Your task to perform on an android device: check the backup settings in the google photos Image 0: 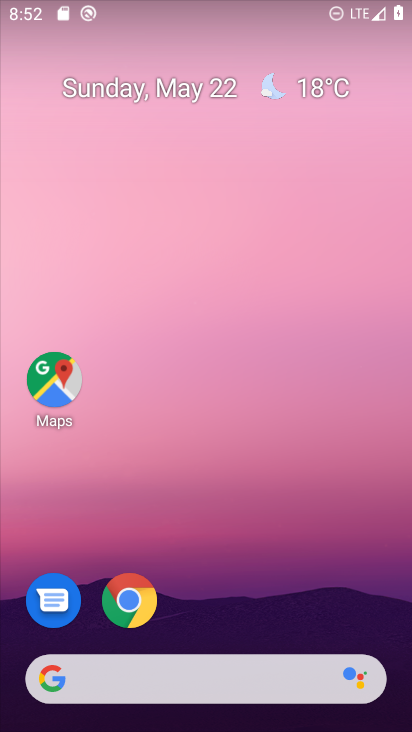
Step 0: drag from (322, 482) to (259, 14)
Your task to perform on an android device: check the backup settings in the google photos Image 1: 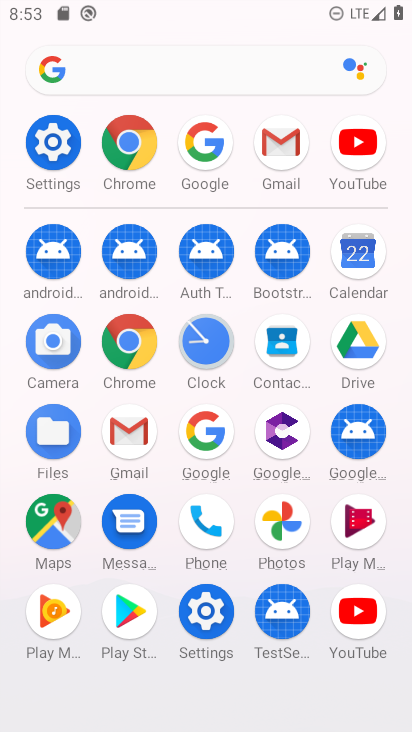
Step 1: click (275, 530)
Your task to perform on an android device: check the backup settings in the google photos Image 2: 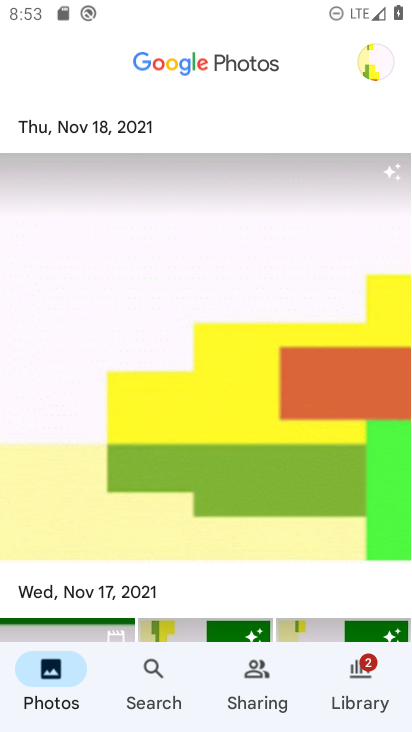
Step 2: task complete